Your task to perform on an android device: toggle show notifications on the lock screen Image 0: 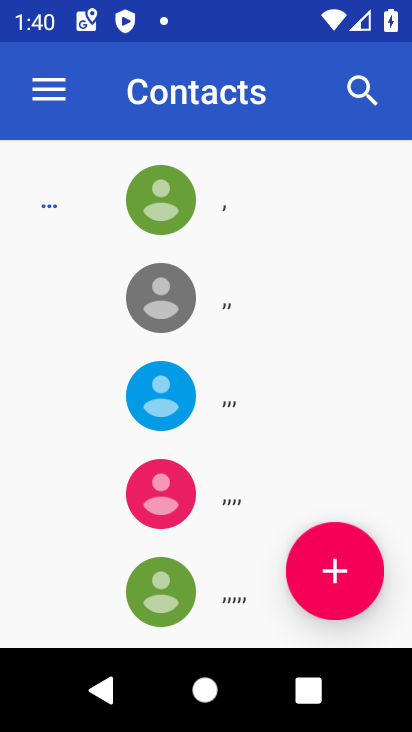
Step 0: press home button
Your task to perform on an android device: toggle show notifications on the lock screen Image 1: 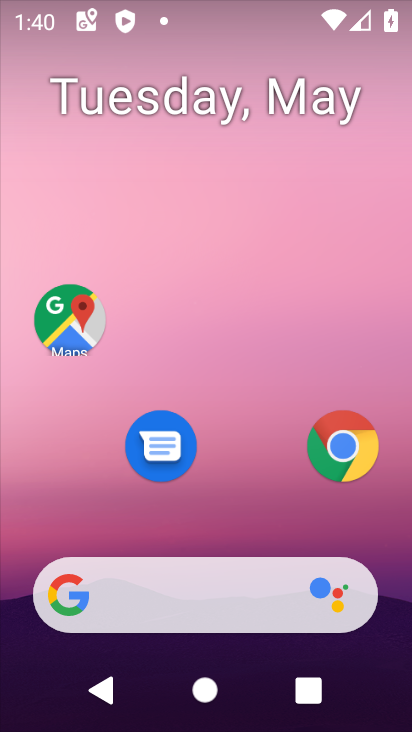
Step 1: drag from (278, 547) to (204, 12)
Your task to perform on an android device: toggle show notifications on the lock screen Image 2: 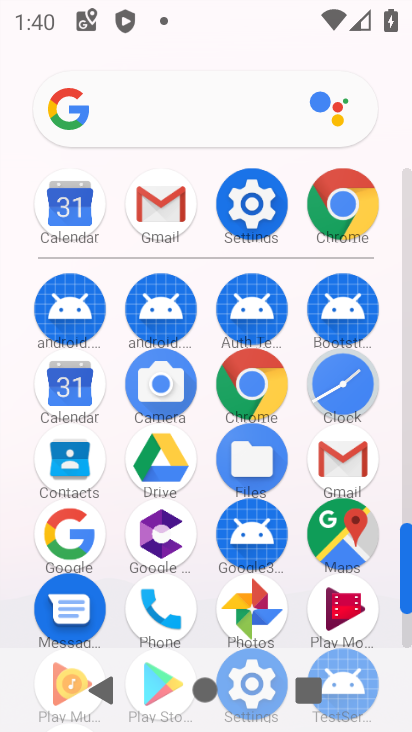
Step 2: click (265, 207)
Your task to perform on an android device: toggle show notifications on the lock screen Image 3: 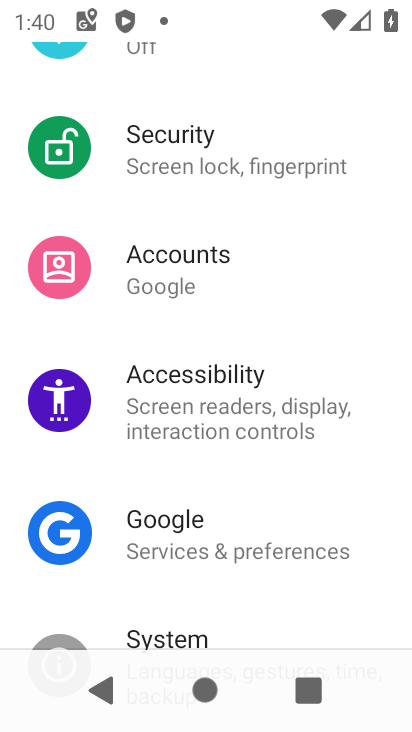
Step 3: drag from (262, 230) to (292, 665)
Your task to perform on an android device: toggle show notifications on the lock screen Image 4: 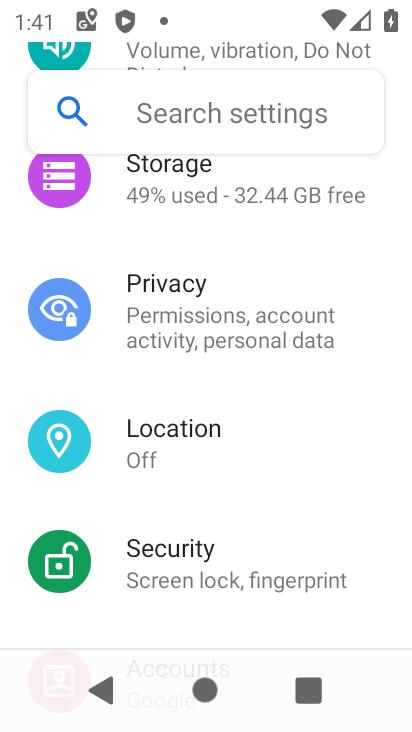
Step 4: drag from (250, 203) to (244, 517)
Your task to perform on an android device: toggle show notifications on the lock screen Image 5: 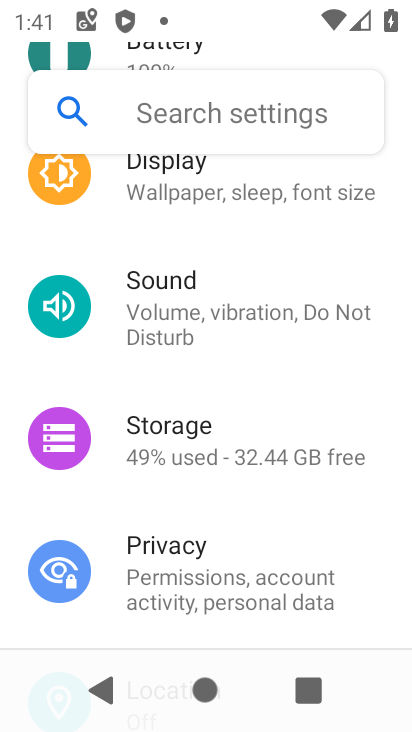
Step 5: drag from (263, 217) to (262, 652)
Your task to perform on an android device: toggle show notifications on the lock screen Image 6: 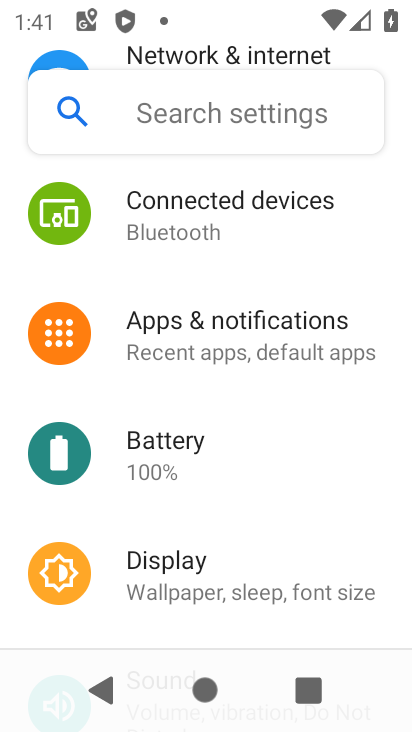
Step 6: click (257, 327)
Your task to perform on an android device: toggle show notifications on the lock screen Image 7: 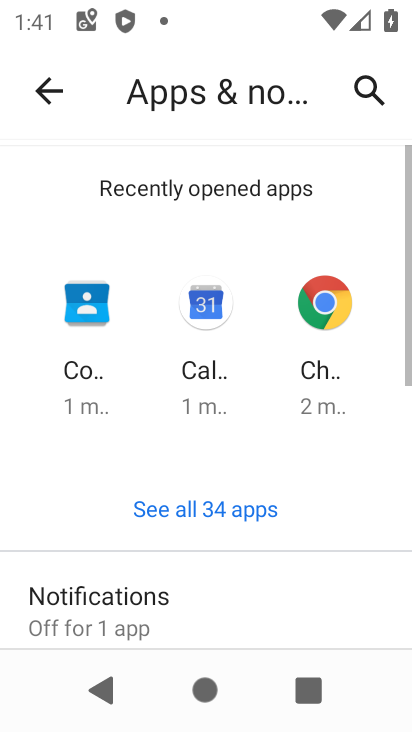
Step 7: click (186, 587)
Your task to perform on an android device: toggle show notifications on the lock screen Image 8: 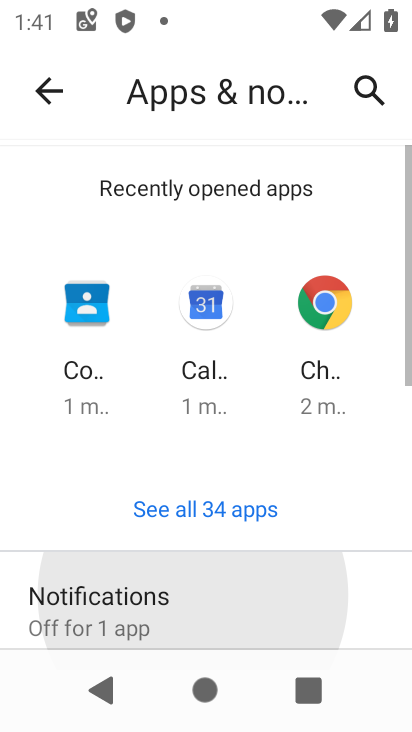
Step 8: drag from (186, 587) to (152, 13)
Your task to perform on an android device: toggle show notifications on the lock screen Image 9: 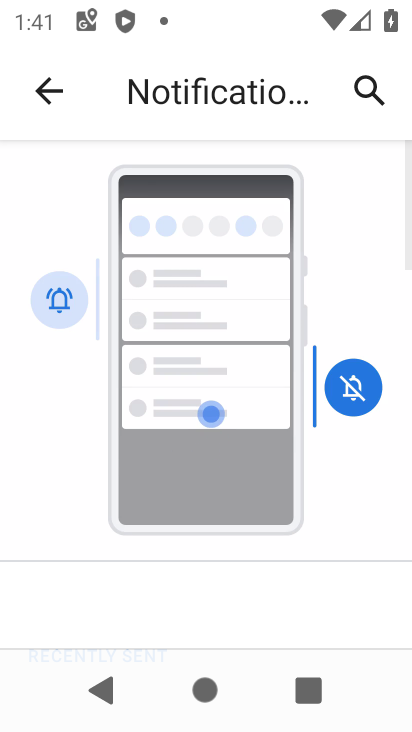
Step 9: drag from (210, 646) to (220, 49)
Your task to perform on an android device: toggle show notifications on the lock screen Image 10: 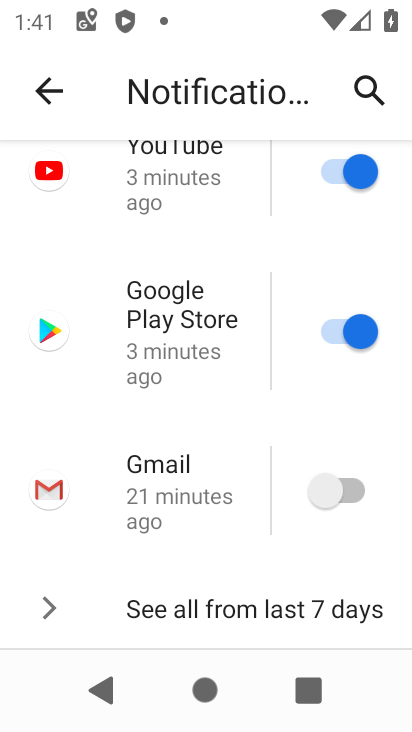
Step 10: drag from (276, 545) to (260, 133)
Your task to perform on an android device: toggle show notifications on the lock screen Image 11: 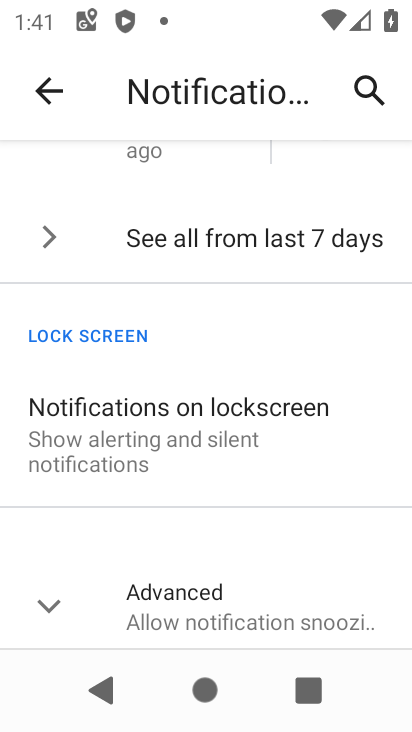
Step 11: drag from (303, 608) to (288, 298)
Your task to perform on an android device: toggle show notifications on the lock screen Image 12: 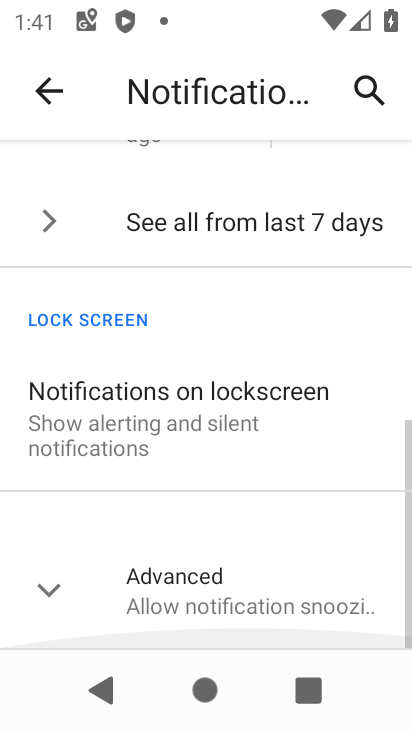
Step 12: click (218, 394)
Your task to perform on an android device: toggle show notifications on the lock screen Image 13: 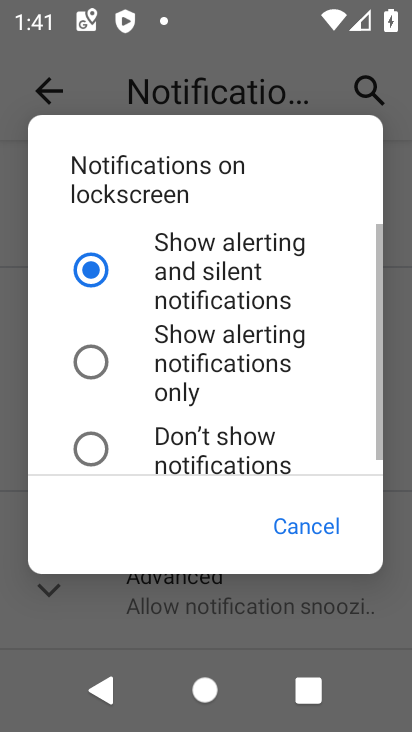
Step 13: click (180, 338)
Your task to perform on an android device: toggle show notifications on the lock screen Image 14: 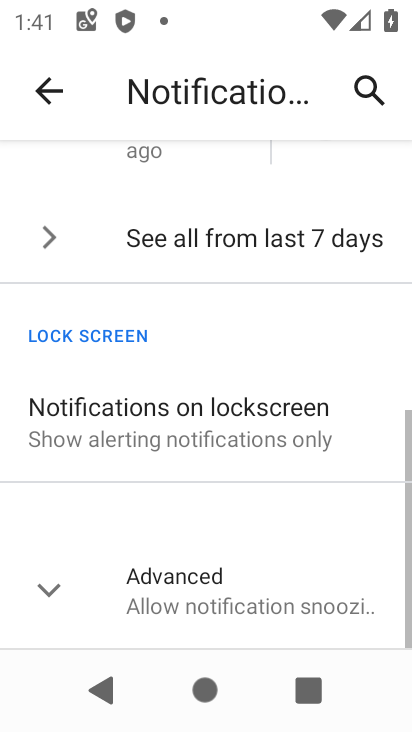
Step 14: task complete